Your task to perform on an android device: open sync settings in chrome Image 0: 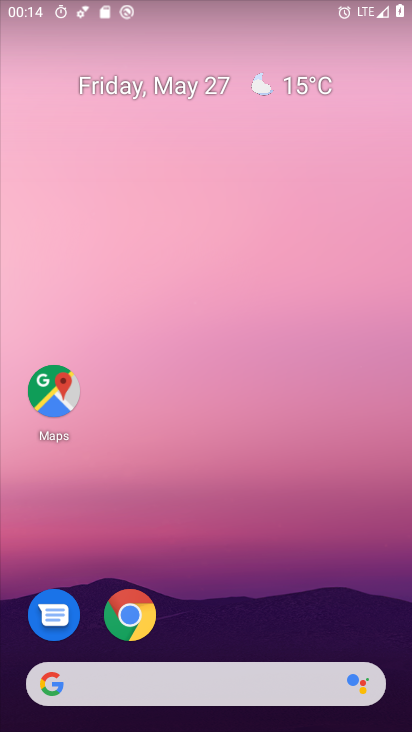
Step 0: click (108, 103)
Your task to perform on an android device: open sync settings in chrome Image 1: 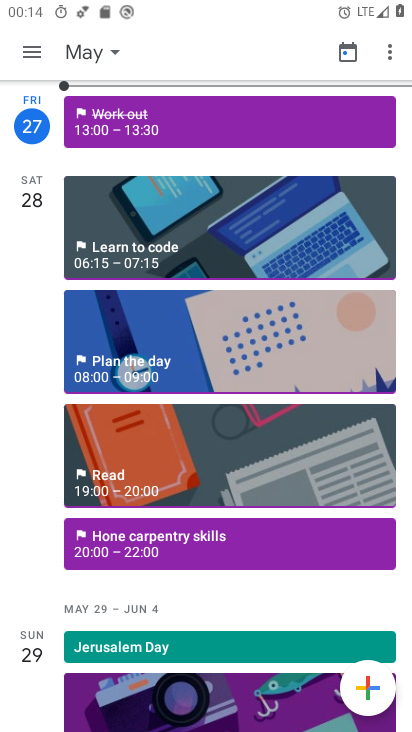
Step 1: press back button
Your task to perform on an android device: open sync settings in chrome Image 2: 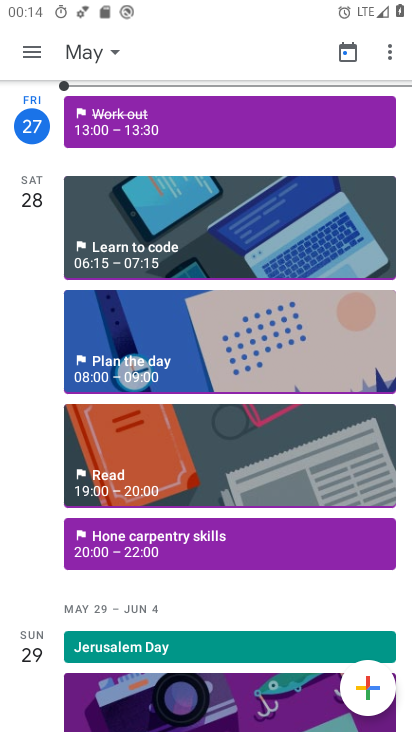
Step 2: press back button
Your task to perform on an android device: open sync settings in chrome Image 3: 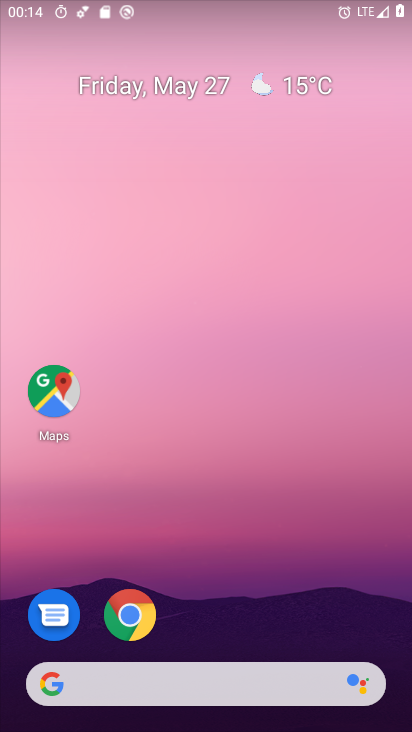
Step 3: press home button
Your task to perform on an android device: open sync settings in chrome Image 4: 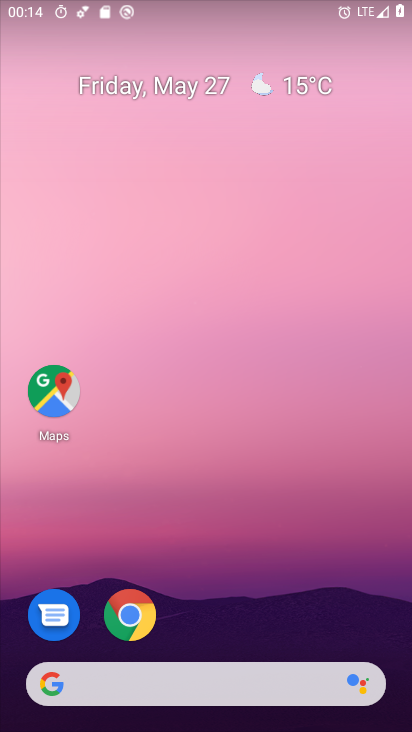
Step 4: drag from (257, 644) to (147, 174)
Your task to perform on an android device: open sync settings in chrome Image 5: 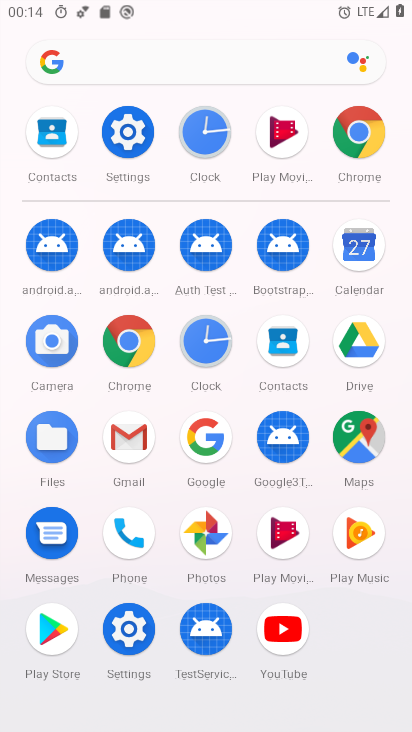
Step 5: click (355, 136)
Your task to perform on an android device: open sync settings in chrome Image 6: 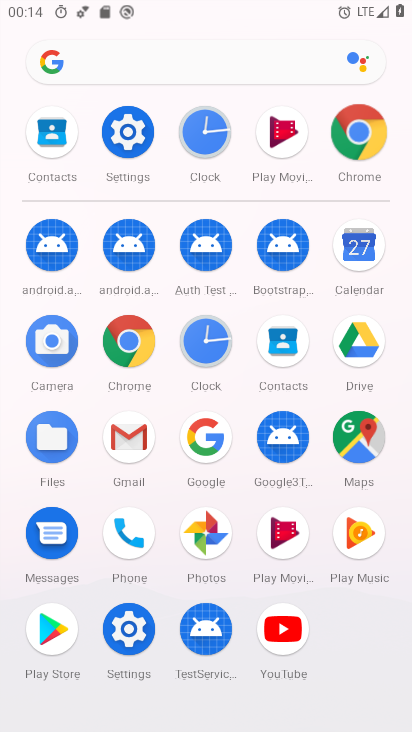
Step 6: click (356, 136)
Your task to perform on an android device: open sync settings in chrome Image 7: 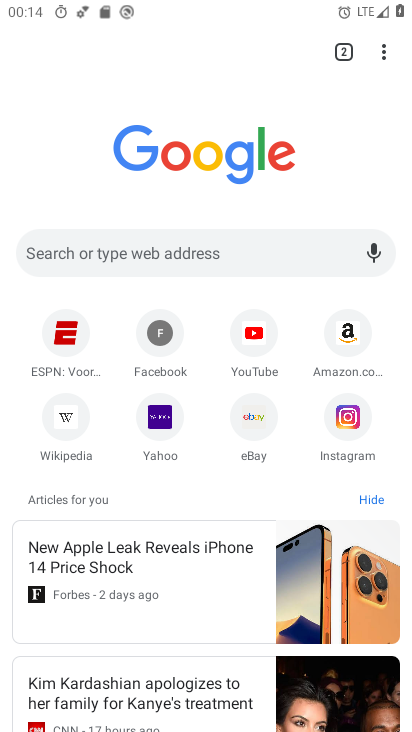
Step 7: drag from (383, 53) to (201, 443)
Your task to perform on an android device: open sync settings in chrome Image 8: 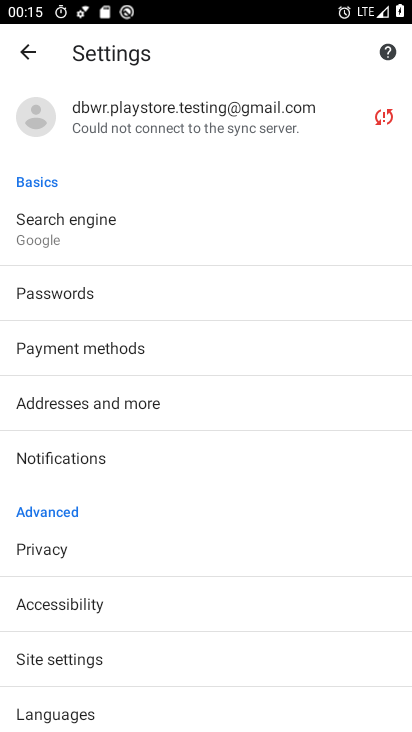
Step 8: drag from (93, 566) to (88, 74)
Your task to perform on an android device: open sync settings in chrome Image 9: 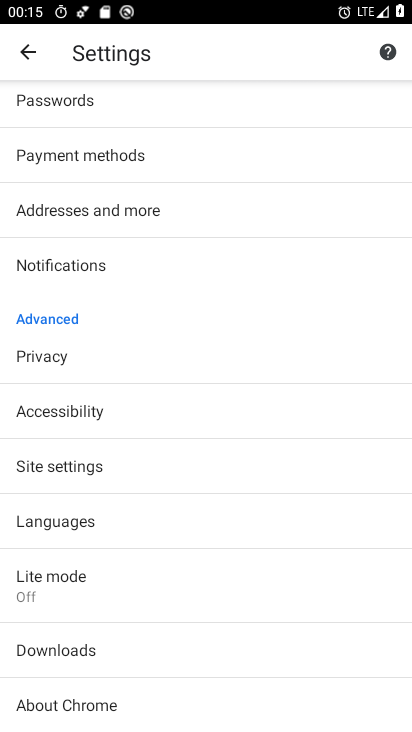
Step 9: drag from (161, 514) to (161, 87)
Your task to perform on an android device: open sync settings in chrome Image 10: 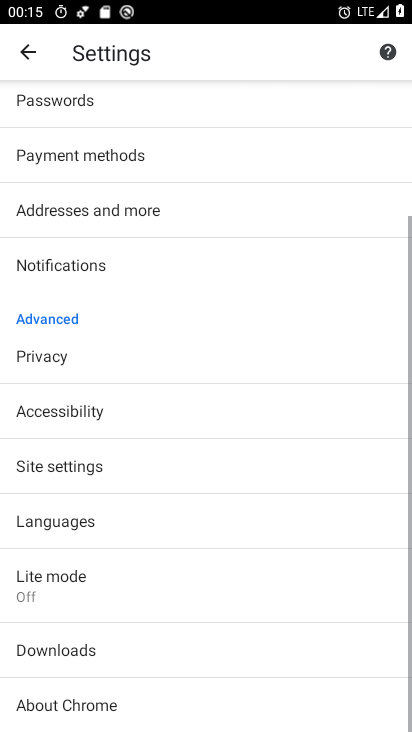
Step 10: click (42, 462)
Your task to perform on an android device: open sync settings in chrome Image 11: 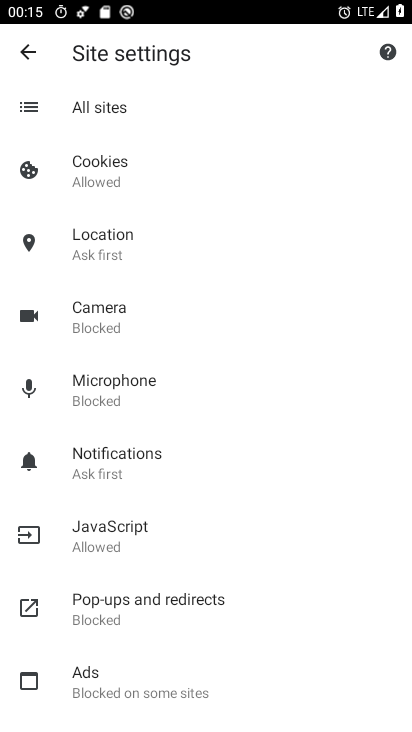
Step 11: drag from (98, 521) to (72, 115)
Your task to perform on an android device: open sync settings in chrome Image 12: 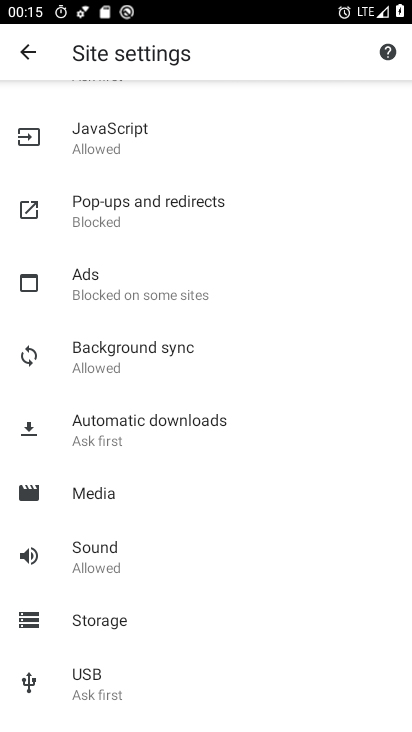
Step 12: click (89, 342)
Your task to perform on an android device: open sync settings in chrome Image 13: 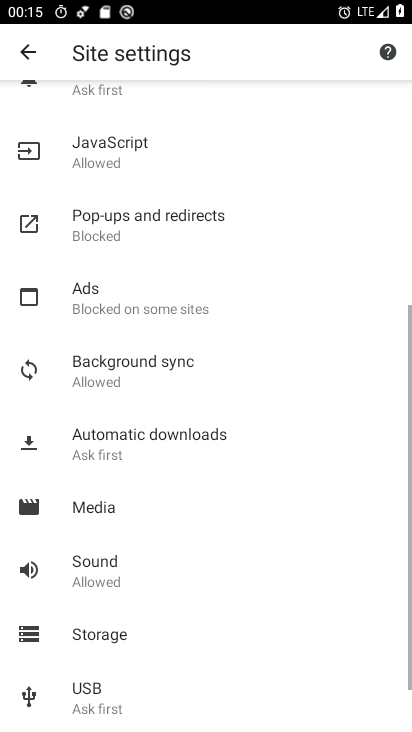
Step 13: click (102, 365)
Your task to perform on an android device: open sync settings in chrome Image 14: 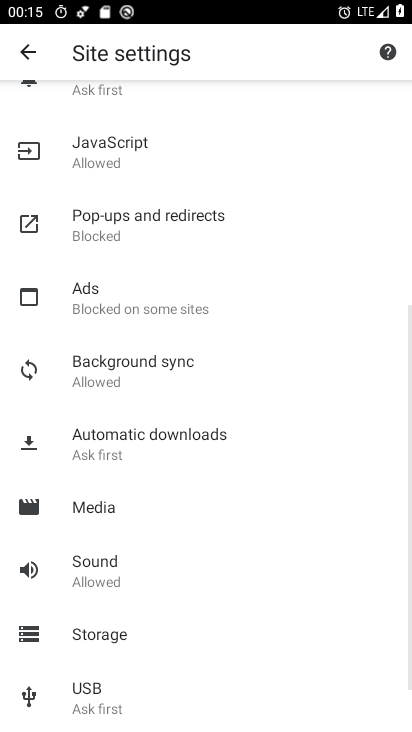
Step 14: click (102, 365)
Your task to perform on an android device: open sync settings in chrome Image 15: 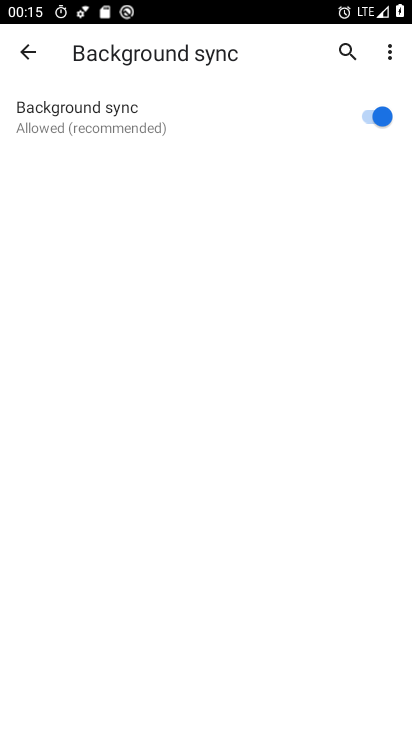
Step 15: task complete